Your task to perform on an android device: clear all cookies in the chrome app Image 0: 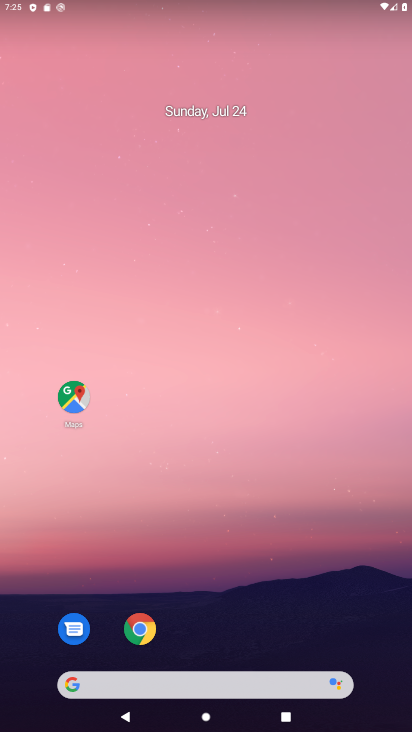
Step 0: drag from (353, 625) to (193, 73)
Your task to perform on an android device: clear all cookies in the chrome app Image 1: 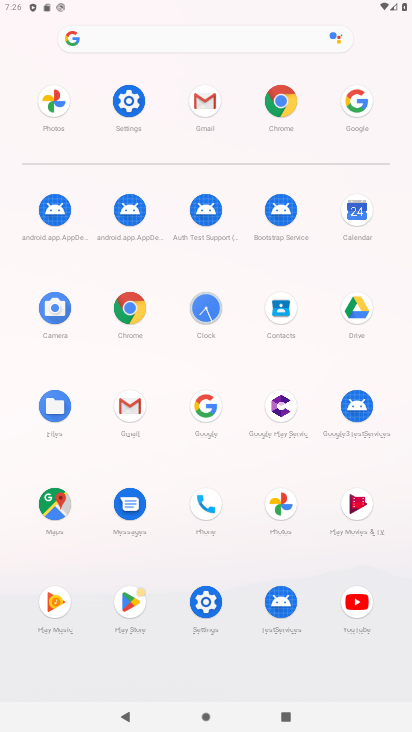
Step 1: click (120, 296)
Your task to perform on an android device: clear all cookies in the chrome app Image 2: 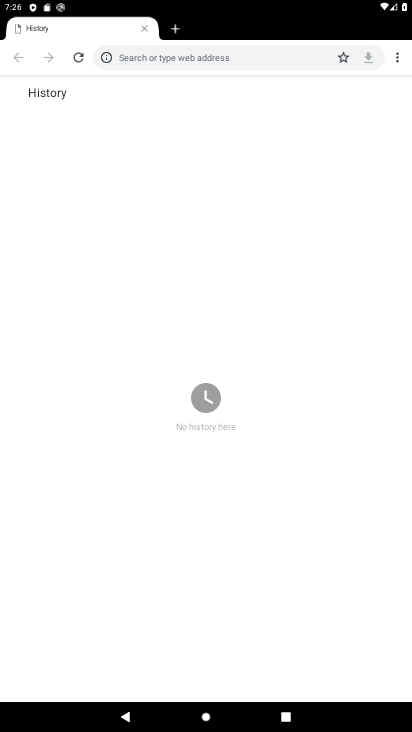
Step 2: click (400, 54)
Your task to perform on an android device: clear all cookies in the chrome app Image 3: 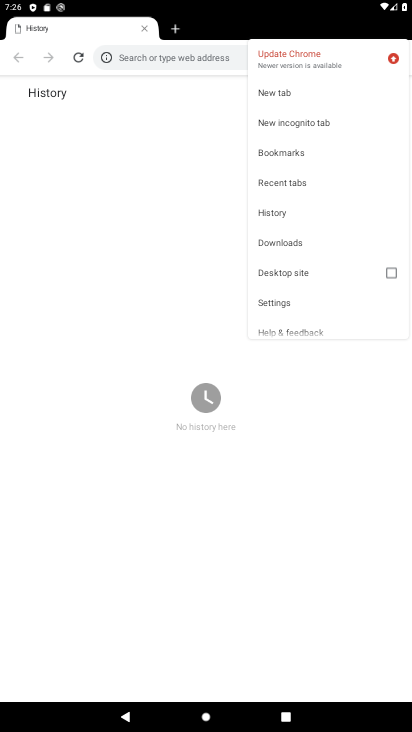
Step 3: click (279, 215)
Your task to perform on an android device: clear all cookies in the chrome app Image 4: 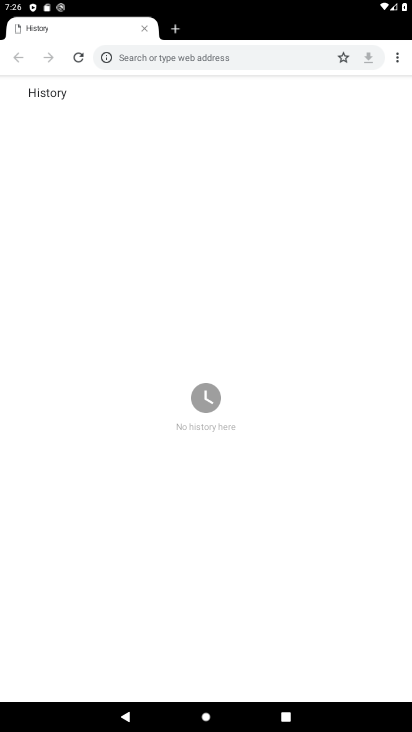
Step 4: task complete